Your task to perform on an android device: Go to ESPN.com Image 0: 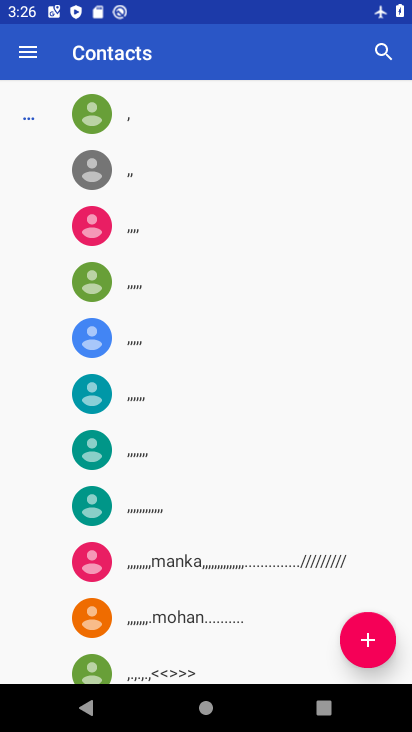
Step 0: press home button
Your task to perform on an android device: Go to ESPN.com Image 1: 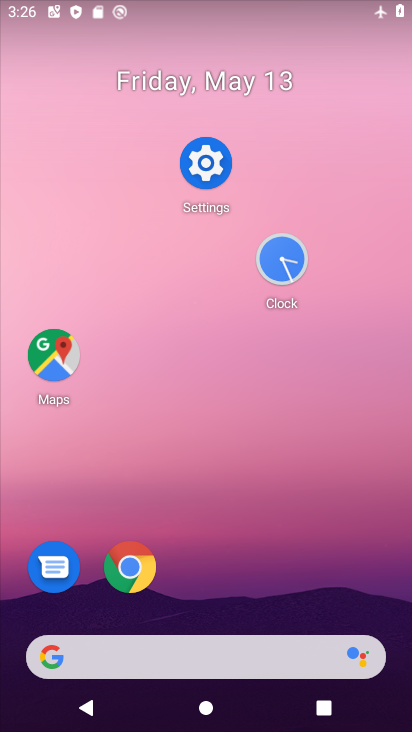
Step 1: drag from (231, 568) to (337, 8)
Your task to perform on an android device: Go to ESPN.com Image 2: 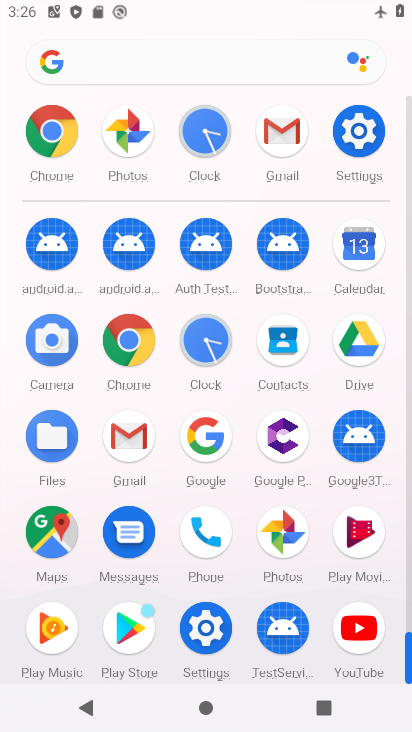
Step 2: click (56, 190)
Your task to perform on an android device: Go to ESPN.com Image 3: 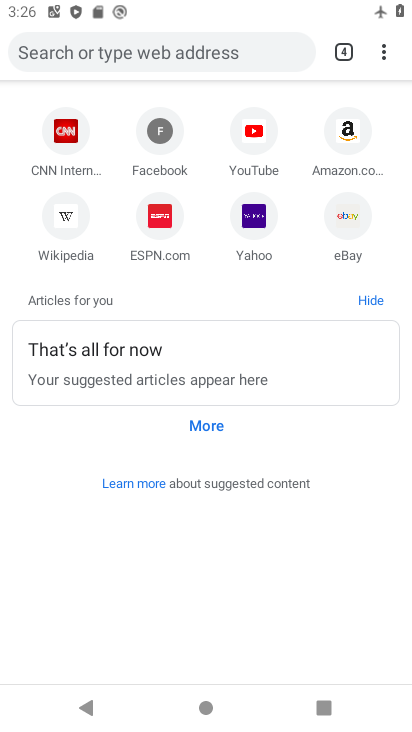
Step 3: drag from (73, 146) to (191, 271)
Your task to perform on an android device: Go to ESPN.com Image 4: 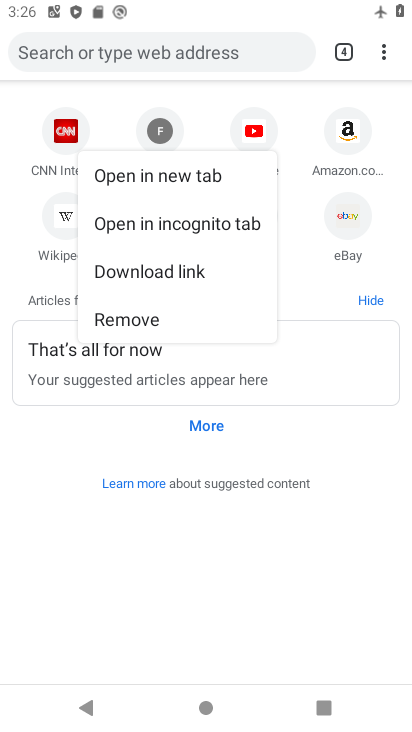
Step 4: click (281, 400)
Your task to perform on an android device: Go to ESPN.com Image 5: 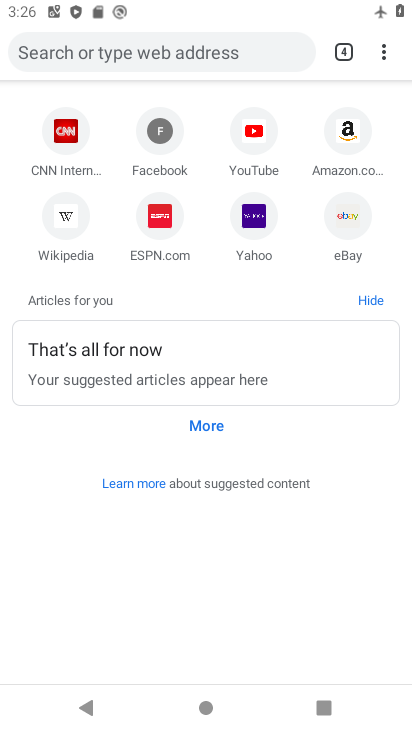
Step 5: click (151, 249)
Your task to perform on an android device: Go to ESPN.com Image 6: 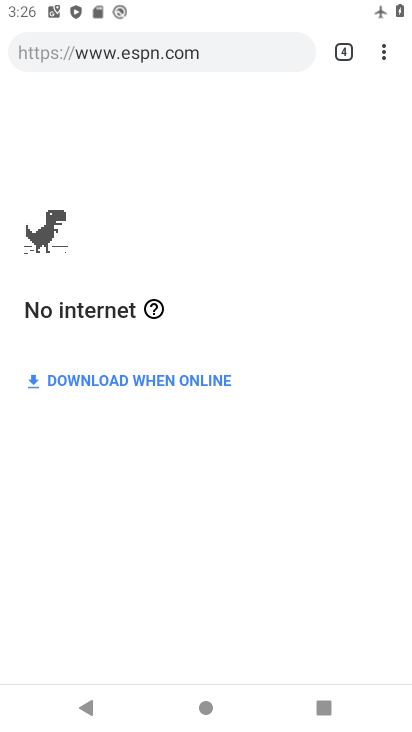
Step 6: task complete